Your task to perform on an android device: turn on priority inbox in the gmail app Image 0: 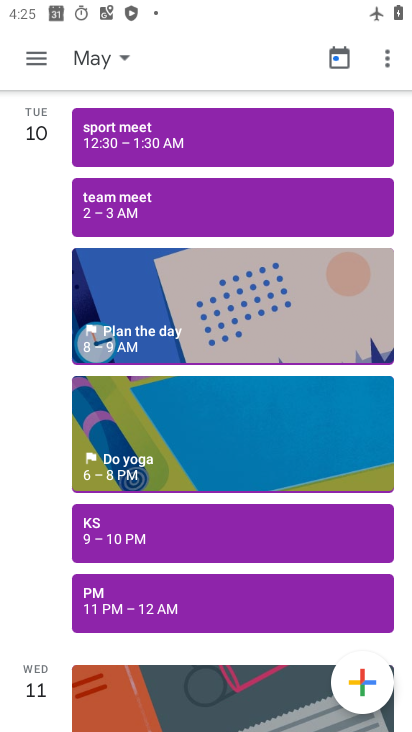
Step 0: press home button
Your task to perform on an android device: turn on priority inbox in the gmail app Image 1: 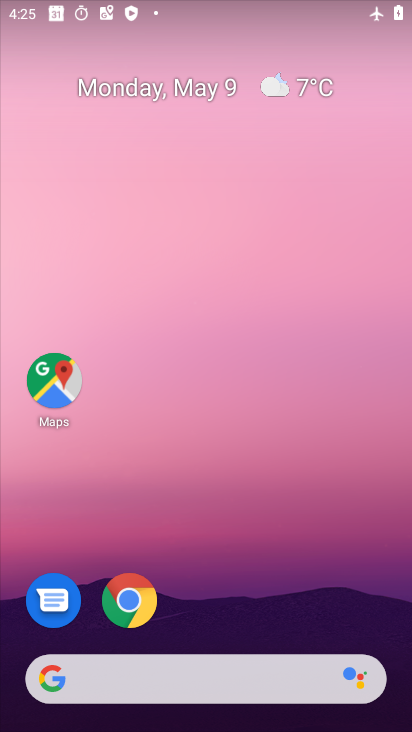
Step 1: drag from (319, 626) to (321, 147)
Your task to perform on an android device: turn on priority inbox in the gmail app Image 2: 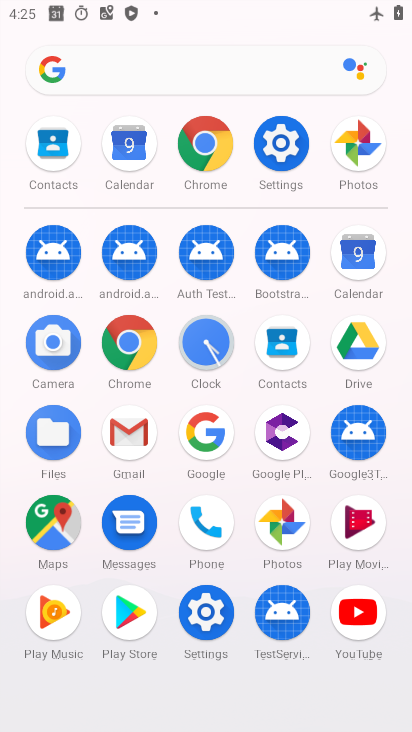
Step 2: click (134, 430)
Your task to perform on an android device: turn on priority inbox in the gmail app Image 3: 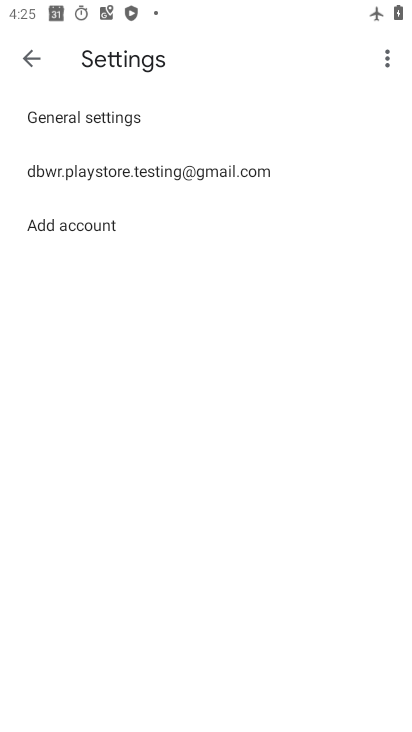
Step 3: click (98, 164)
Your task to perform on an android device: turn on priority inbox in the gmail app Image 4: 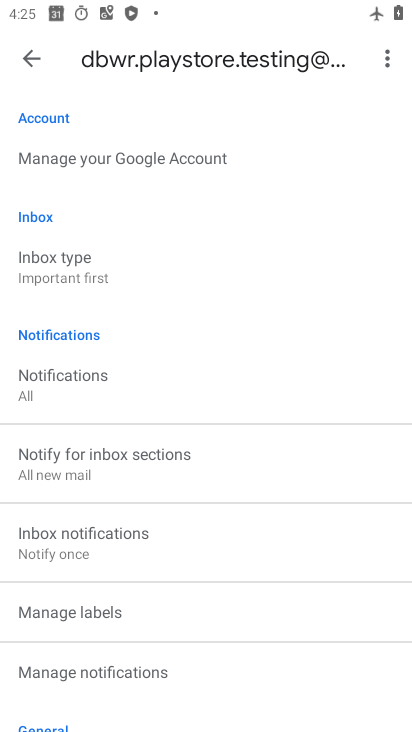
Step 4: drag from (148, 377) to (172, 252)
Your task to perform on an android device: turn on priority inbox in the gmail app Image 5: 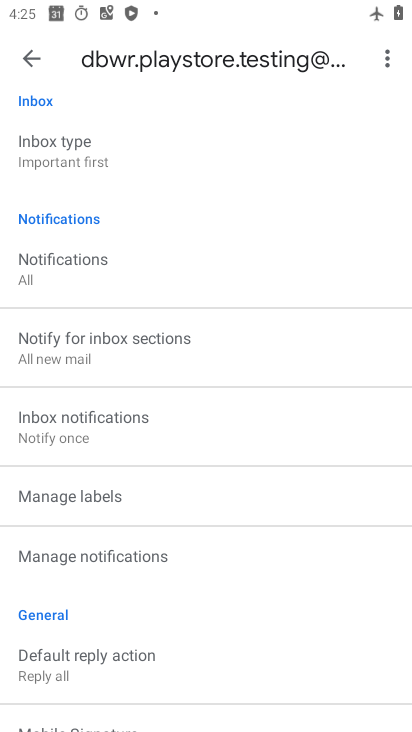
Step 5: click (73, 154)
Your task to perform on an android device: turn on priority inbox in the gmail app Image 6: 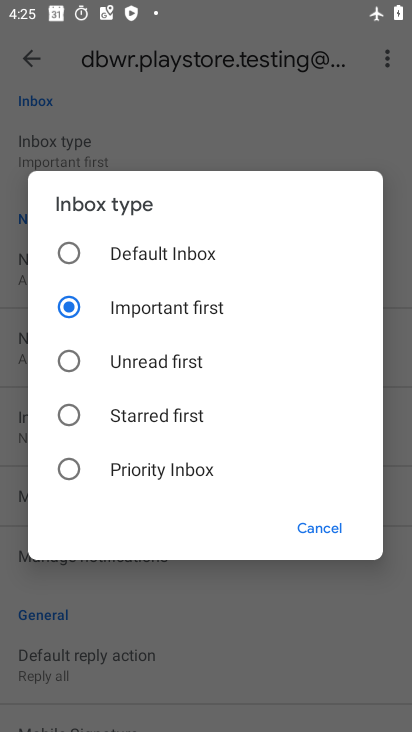
Step 6: task complete